Your task to perform on an android device: add a label to a message in the gmail app Image 0: 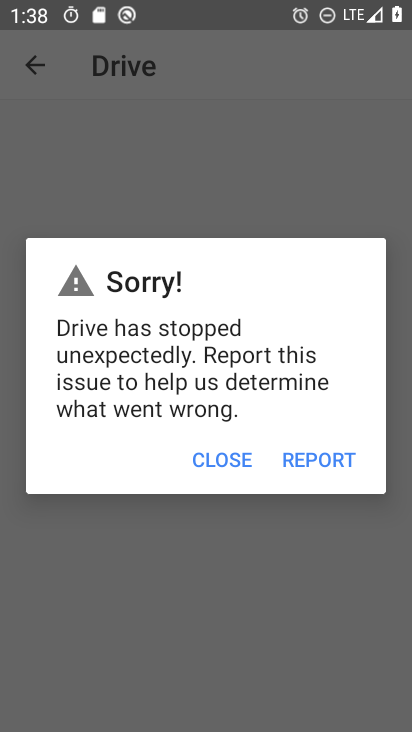
Step 0: press home button
Your task to perform on an android device: add a label to a message in the gmail app Image 1: 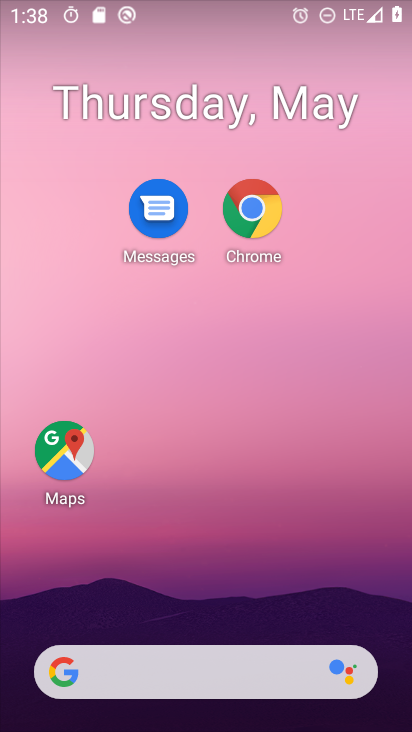
Step 1: drag from (238, 609) to (162, 108)
Your task to perform on an android device: add a label to a message in the gmail app Image 2: 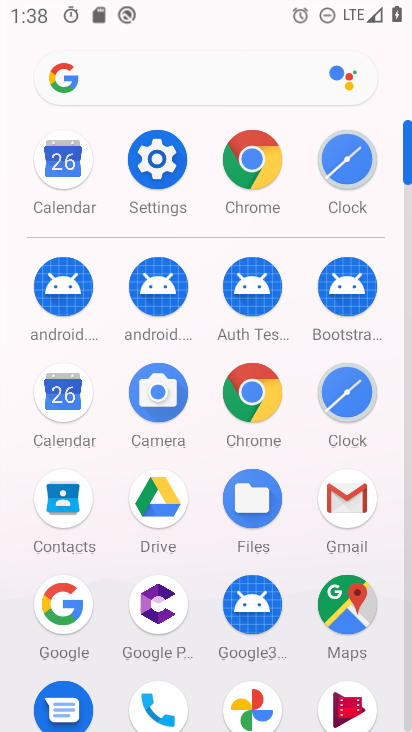
Step 2: click (337, 508)
Your task to perform on an android device: add a label to a message in the gmail app Image 3: 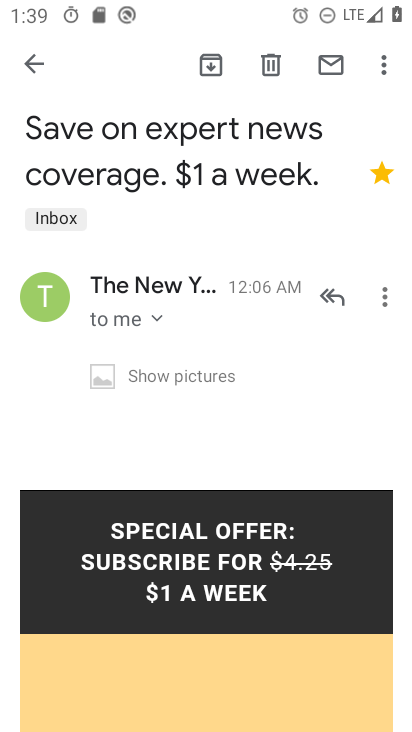
Step 3: click (30, 67)
Your task to perform on an android device: add a label to a message in the gmail app Image 4: 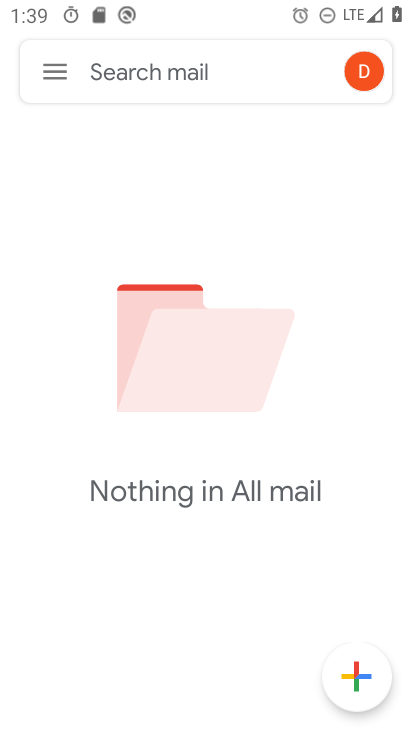
Step 4: click (57, 77)
Your task to perform on an android device: add a label to a message in the gmail app Image 5: 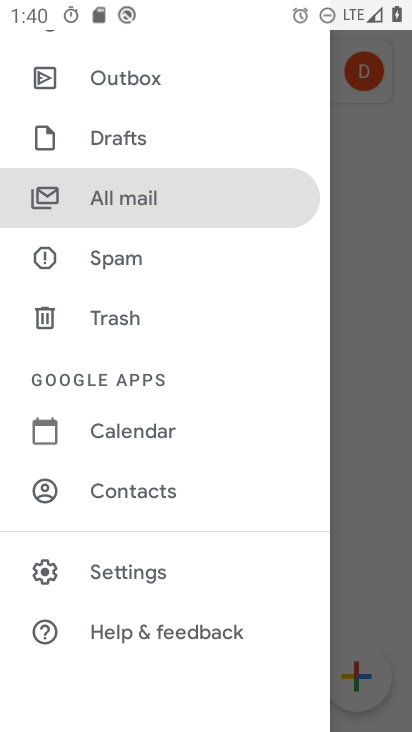
Step 5: press back button
Your task to perform on an android device: add a label to a message in the gmail app Image 6: 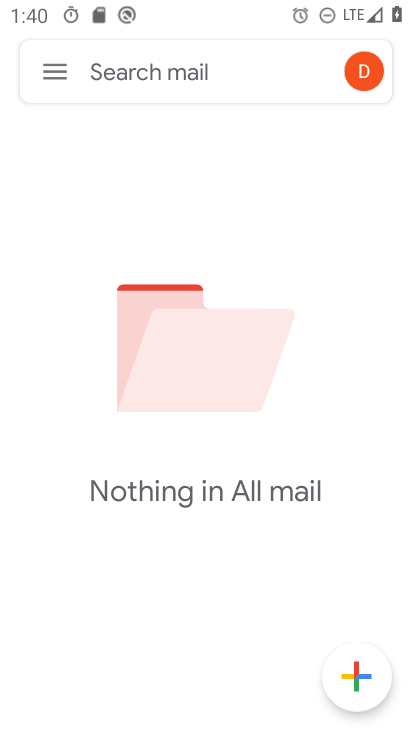
Step 6: click (59, 73)
Your task to perform on an android device: add a label to a message in the gmail app Image 7: 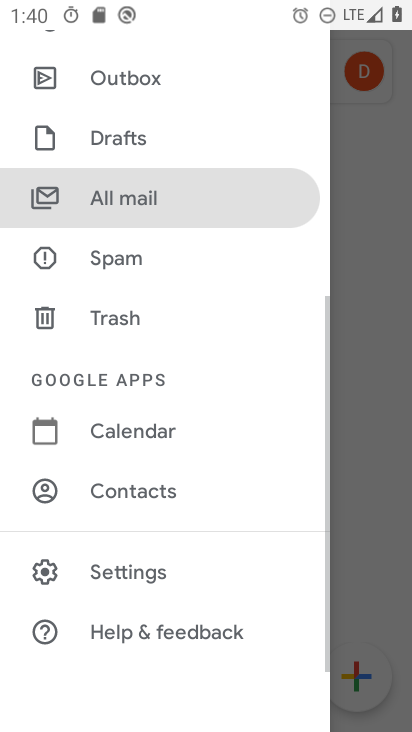
Step 7: click (141, 190)
Your task to perform on an android device: add a label to a message in the gmail app Image 8: 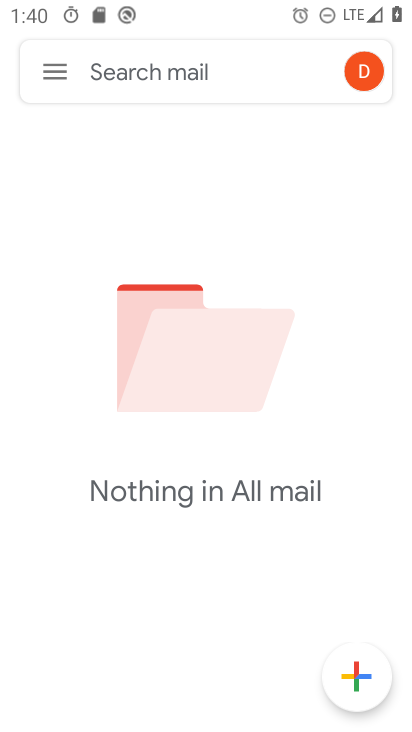
Step 8: task complete